Your task to perform on an android device: Open the calendar app, open the side menu, and click the "Day" option Image 0: 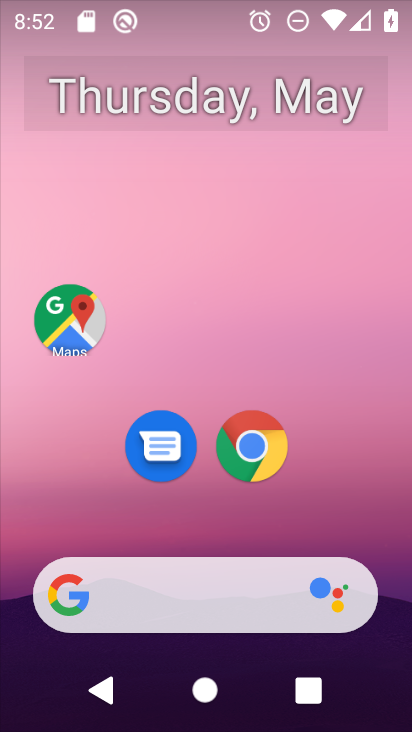
Step 0: drag from (352, 503) to (342, 205)
Your task to perform on an android device: Open the calendar app, open the side menu, and click the "Day" option Image 1: 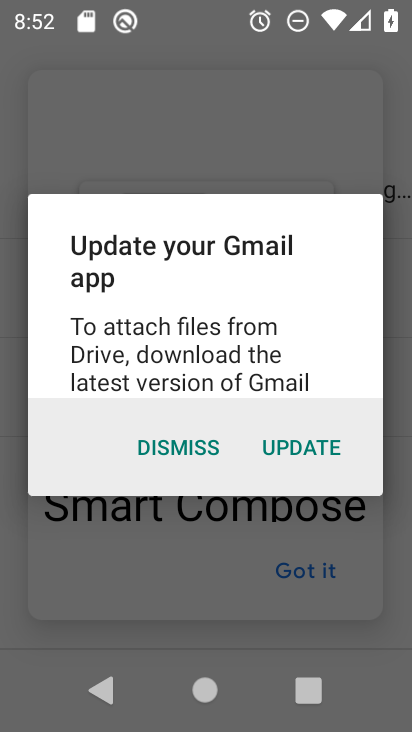
Step 1: click (178, 452)
Your task to perform on an android device: Open the calendar app, open the side menu, and click the "Day" option Image 2: 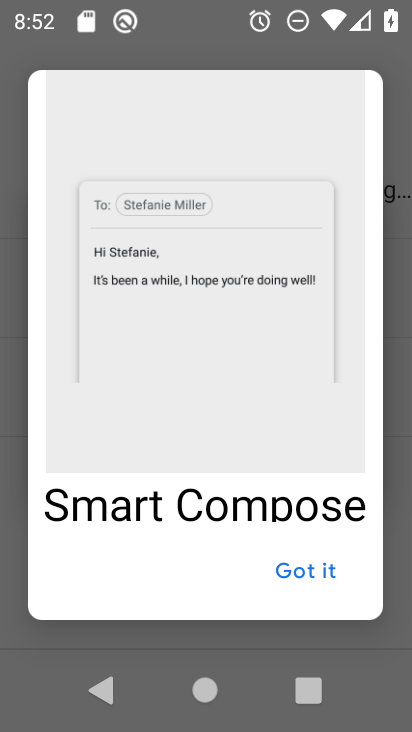
Step 2: press home button
Your task to perform on an android device: Open the calendar app, open the side menu, and click the "Day" option Image 3: 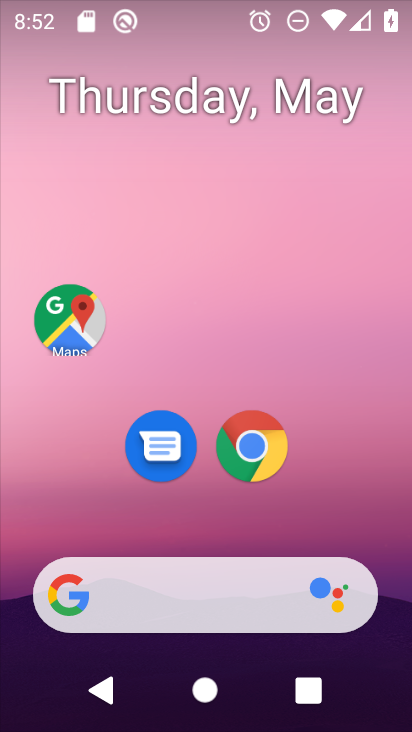
Step 3: drag from (375, 462) to (364, 182)
Your task to perform on an android device: Open the calendar app, open the side menu, and click the "Day" option Image 4: 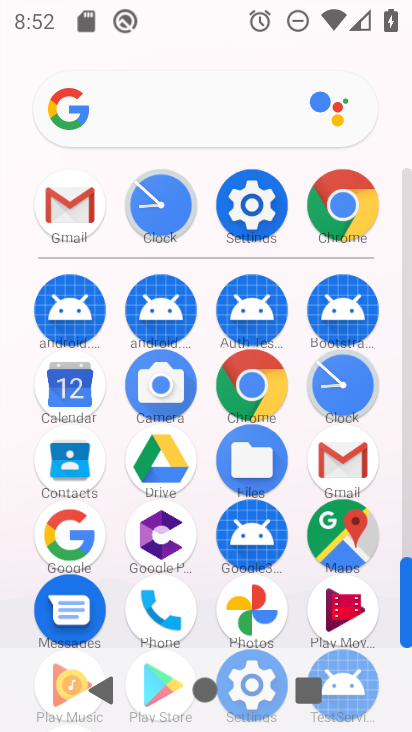
Step 4: click (62, 382)
Your task to perform on an android device: Open the calendar app, open the side menu, and click the "Day" option Image 5: 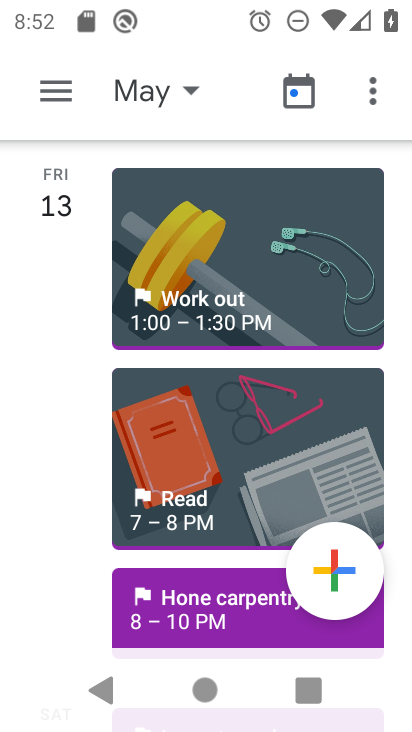
Step 5: click (70, 93)
Your task to perform on an android device: Open the calendar app, open the side menu, and click the "Day" option Image 6: 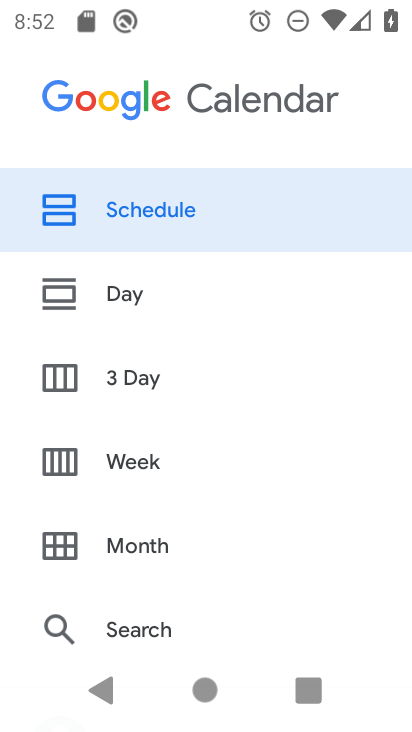
Step 6: click (143, 299)
Your task to perform on an android device: Open the calendar app, open the side menu, and click the "Day" option Image 7: 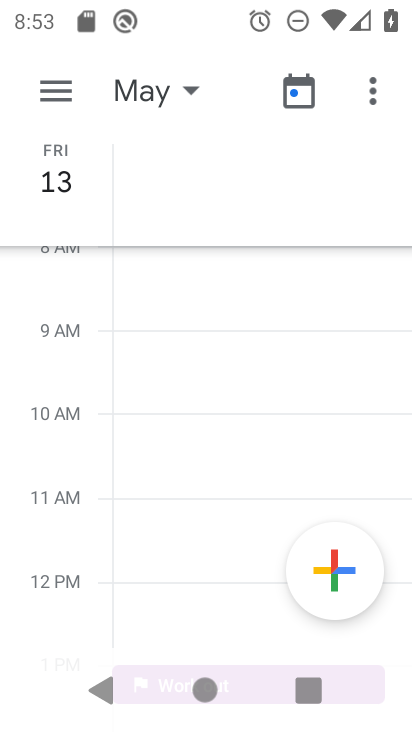
Step 7: drag from (98, 625) to (153, 347)
Your task to perform on an android device: Open the calendar app, open the side menu, and click the "Day" option Image 8: 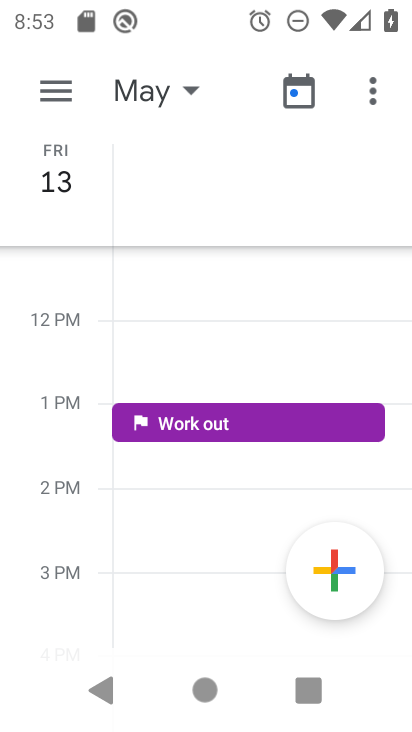
Step 8: drag from (176, 631) to (231, 347)
Your task to perform on an android device: Open the calendar app, open the side menu, and click the "Day" option Image 9: 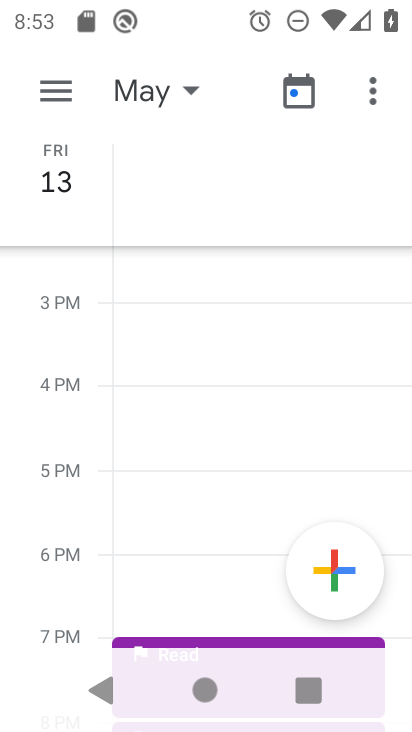
Step 9: click (65, 109)
Your task to perform on an android device: Open the calendar app, open the side menu, and click the "Day" option Image 10: 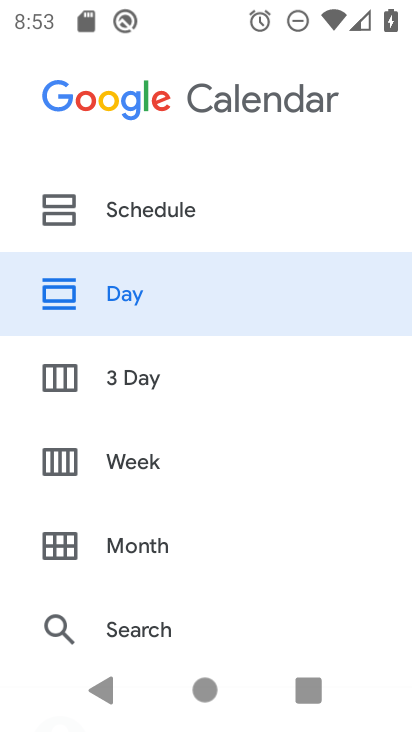
Step 10: task complete